Your task to perform on an android device: toggle sleep mode Image 0: 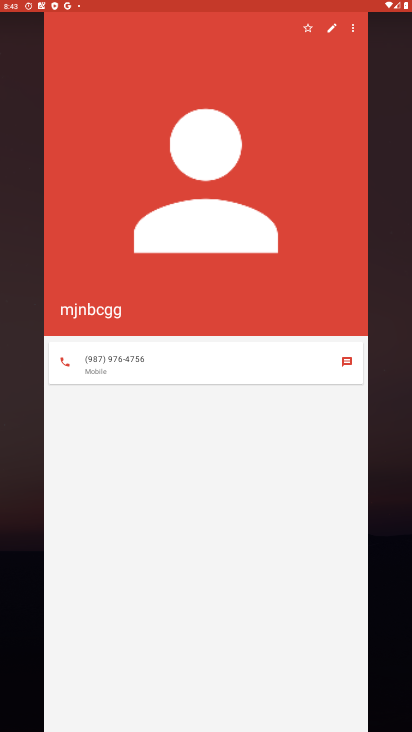
Step 0: drag from (216, 651) to (313, 9)
Your task to perform on an android device: toggle sleep mode Image 1: 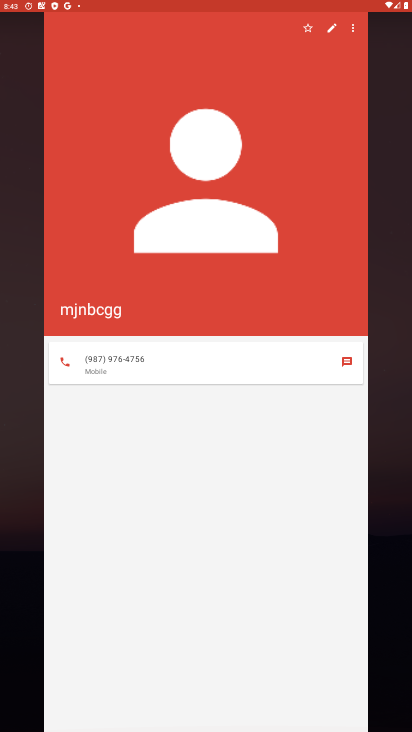
Step 1: press home button
Your task to perform on an android device: toggle sleep mode Image 2: 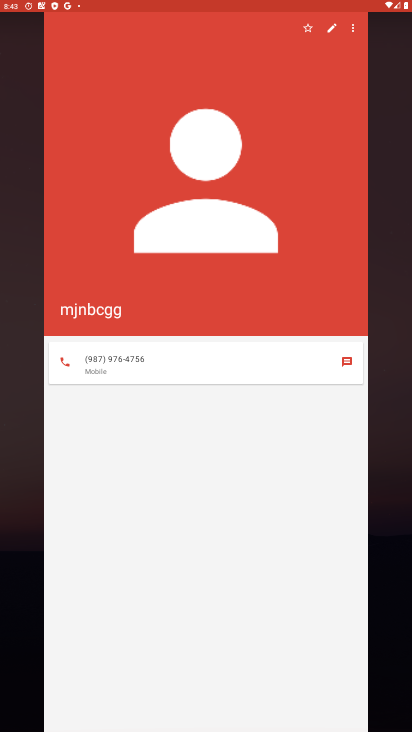
Step 2: click (394, 566)
Your task to perform on an android device: toggle sleep mode Image 3: 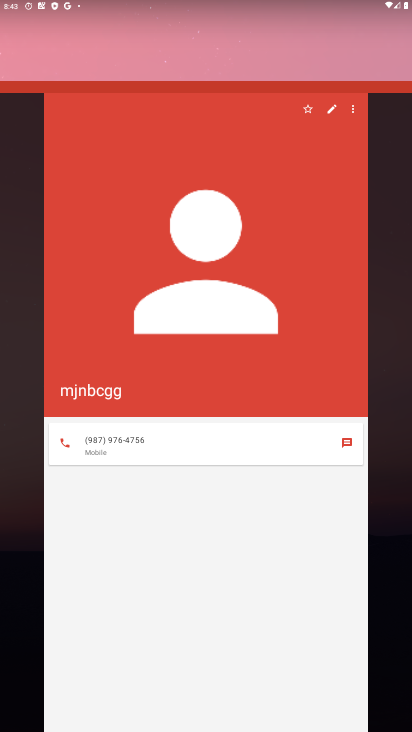
Step 3: press home button
Your task to perform on an android device: toggle sleep mode Image 4: 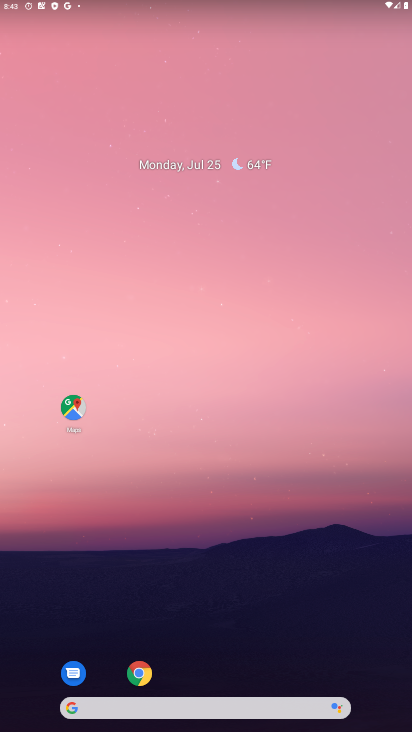
Step 4: drag from (188, 643) to (220, 102)
Your task to perform on an android device: toggle sleep mode Image 5: 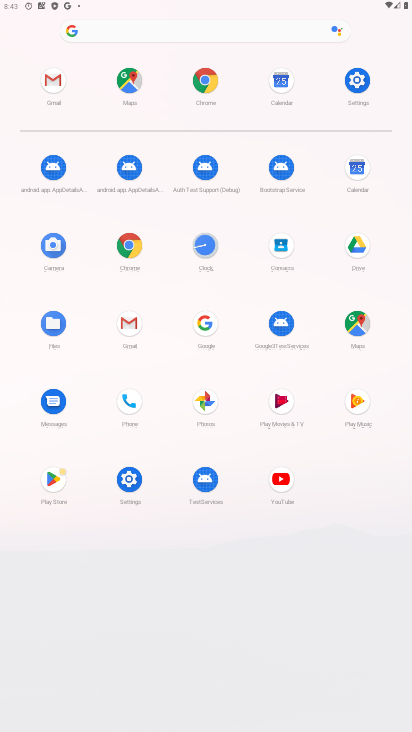
Step 5: click (201, 241)
Your task to perform on an android device: toggle sleep mode Image 6: 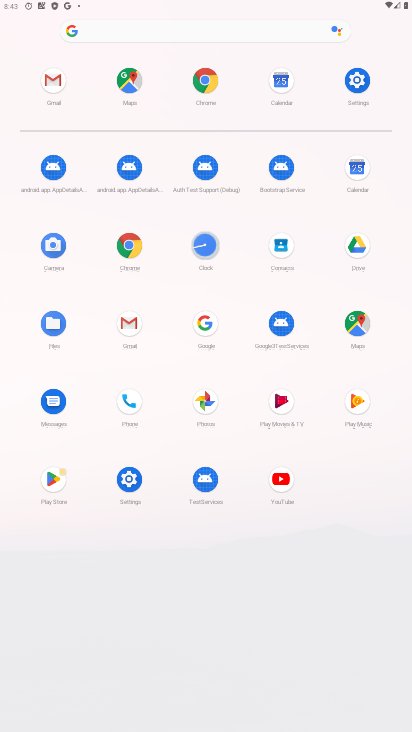
Step 6: click (200, 240)
Your task to perform on an android device: toggle sleep mode Image 7: 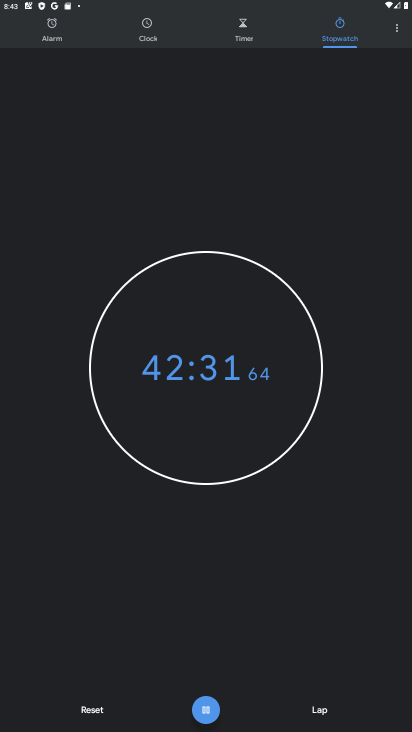
Step 7: press home button
Your task to perform on an android device: toggle sleep mode Image 8: 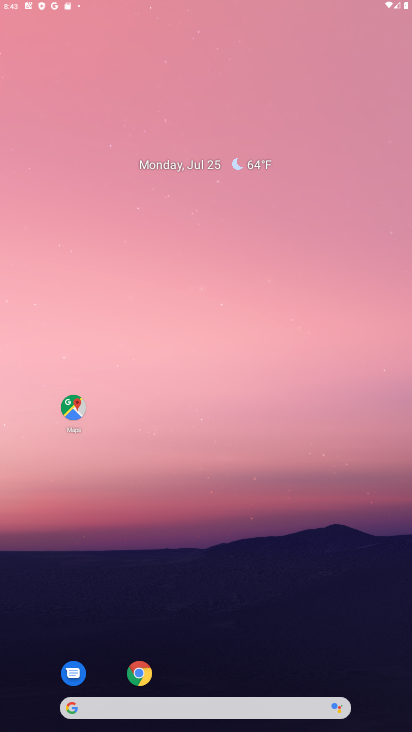
Step 8: drag from (231, 630) to (233, 10)
Your task to perform on an android device: toggle sleep mode Image 9: 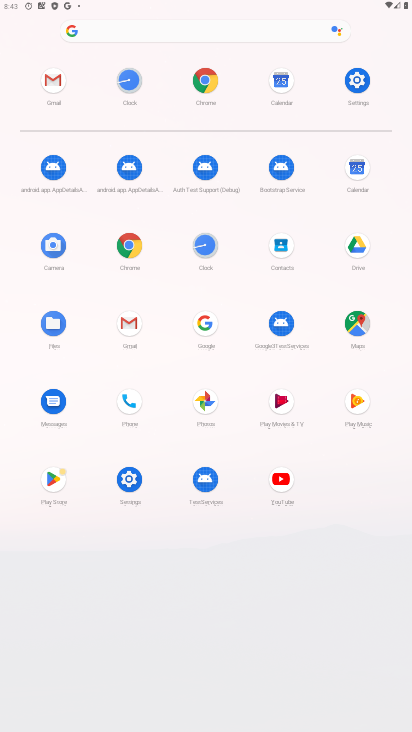
Step 9: click (116, 477)
Your task to perform on an android device: toggle sleep mode Image 10: 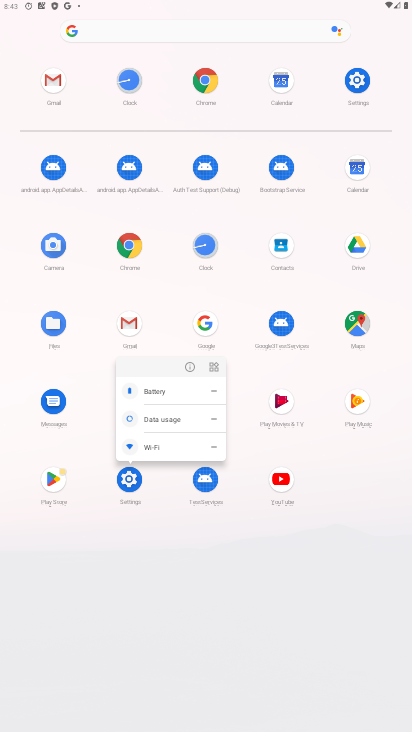
Step 10: click (187, 362)
Your task to perform on an android device: toggle sleep mode Image 11: 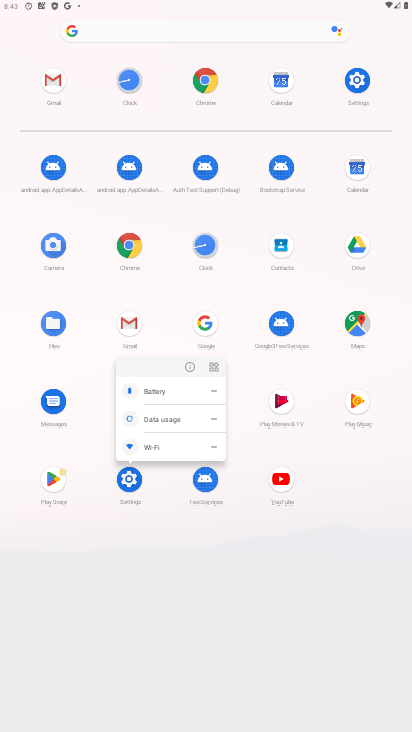
Step 11: click (185, 366)
Your task to perform on an android device: toggle sleep mode Image 12: 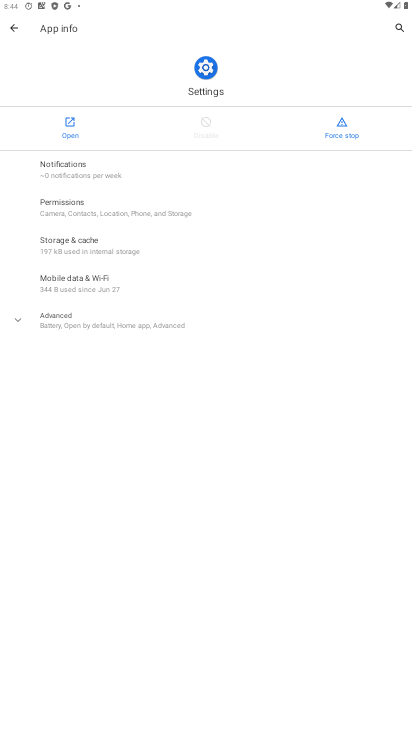
Step 12: click (62, 121)
Your task to perform on an android device: toggle sleep mode Image 13: 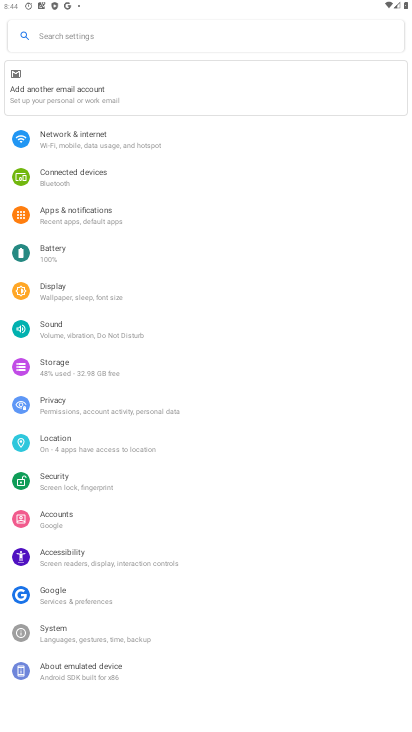
Step 13: click (98, 289)
Your task to perform on an android device: toggle sleep mode Image 14: 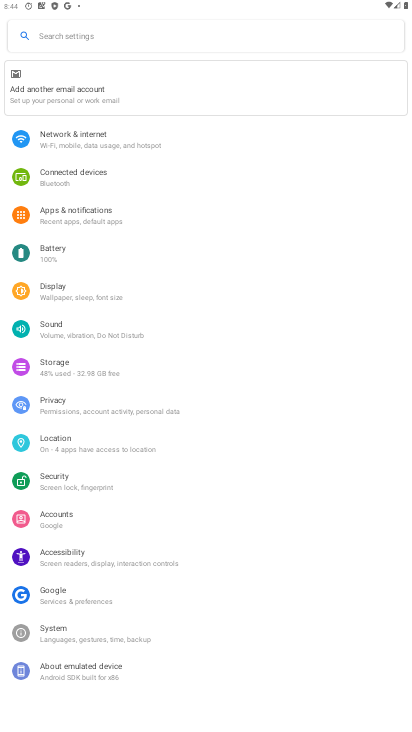
Step 14: click (98, 289)
Your task to perform on an android device: toggle sleep mode Image 15: 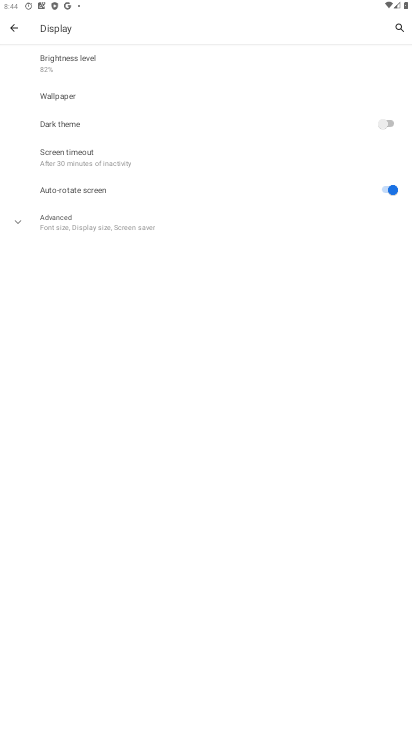
Step 15: click (85, 163)
Your task to perform on an android device: toggle sleep mode Image 16: 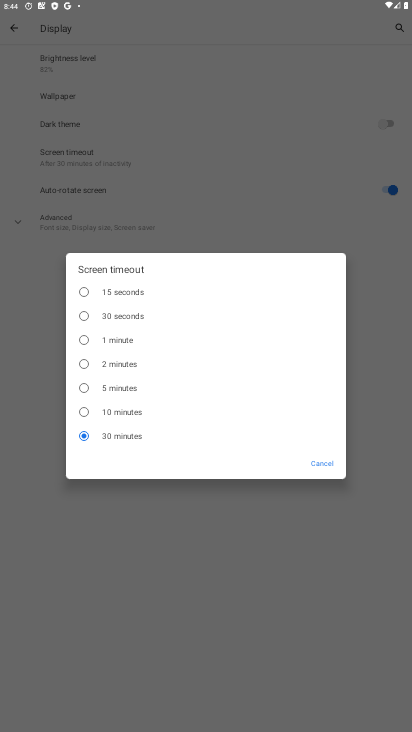
Step 16: click (98, 293)
Your task to perform on an android device: toggle sleep mode Image 17: 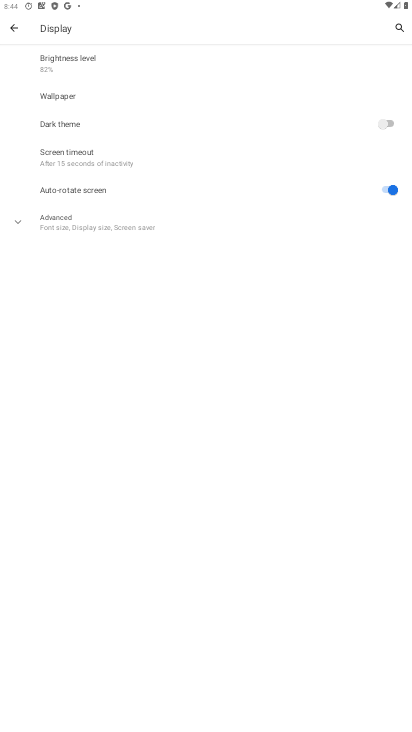
Step 17: task complete